Your task to perform on an android device: clear history in the chrome app Image 0: 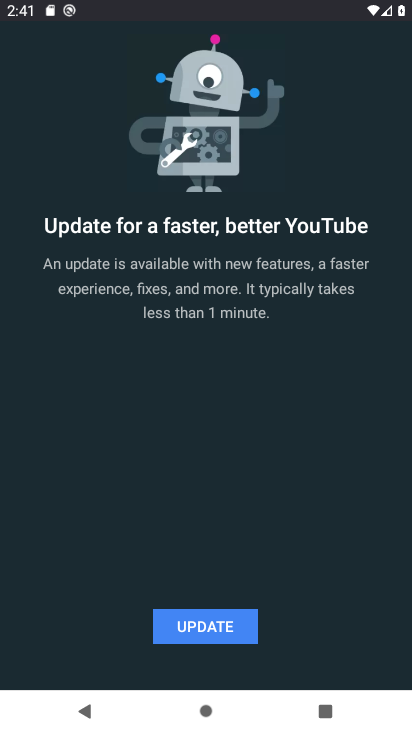
Step 0: drag from (350, 616) to (351, 494)
Your task to perform on an android device: clear history in the chrome app Image 1: 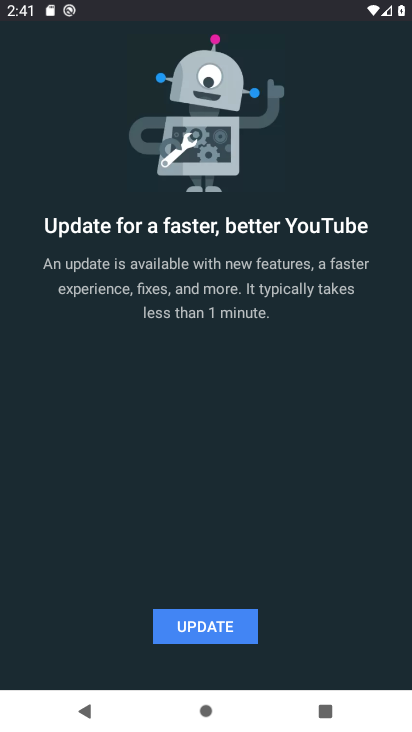
Step 1: press home button
Your task to perform on an android device: clear history in the chrome app Image 2: 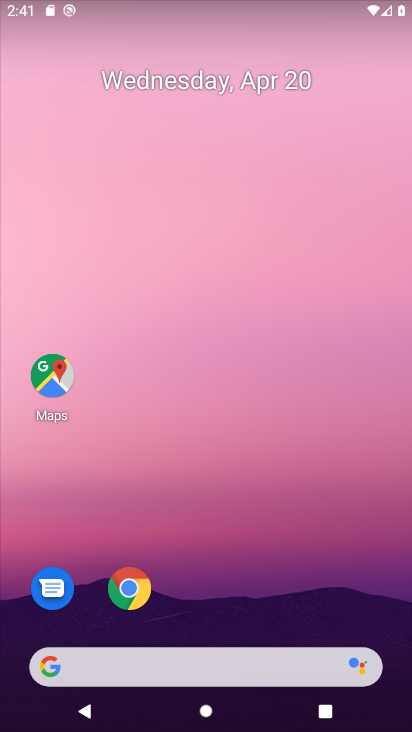
Step 2: drag from (334, 572) to (337, 153)
Your task to perform on an android device: clear history in the chrome app Image 3: 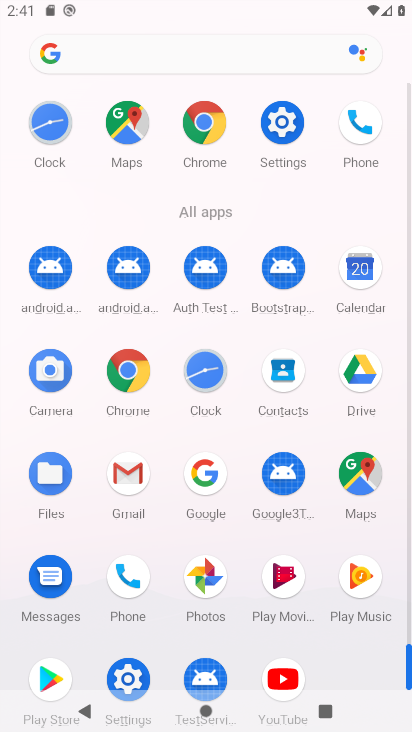
Step 3: click (118, 378)
Your task to perform on an android device: clear history in the chrome app Image 4: 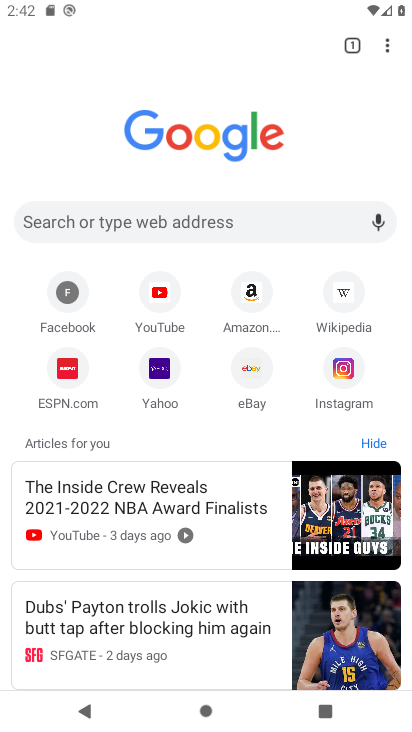
Step 4: click (389, 49)
Your task to perform on an android device: clear history in the chrome app Image 5: 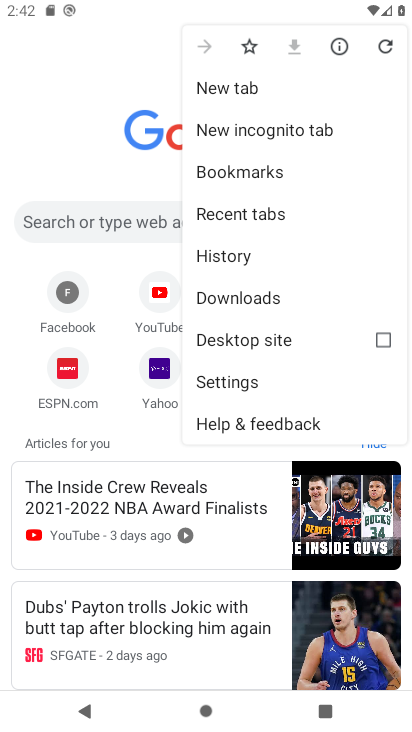
Step 5: click (231, 261)
Your task to perform on an android device: clear history in the chrome app Image 6: 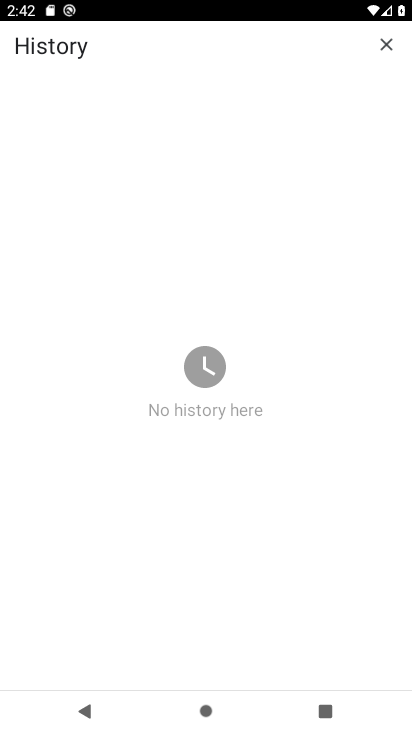
Step 6: task complete